Your task to perform on an android device: turn off priority inbox in the gmail app Image 0: 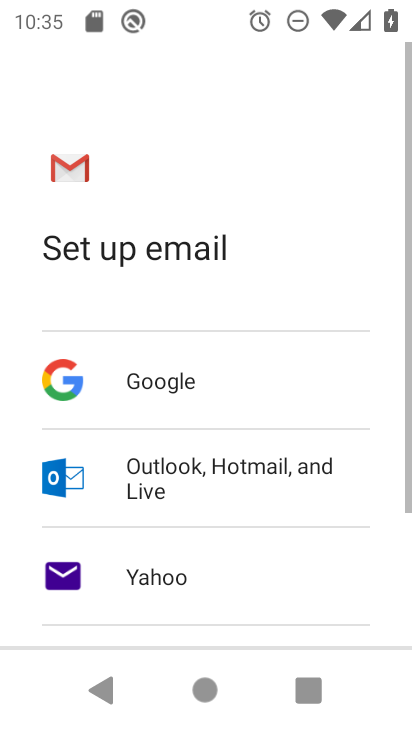
Step 0: press home button
Your task to perform on an android device: turn off priority inbox in the gmail app Image 1: 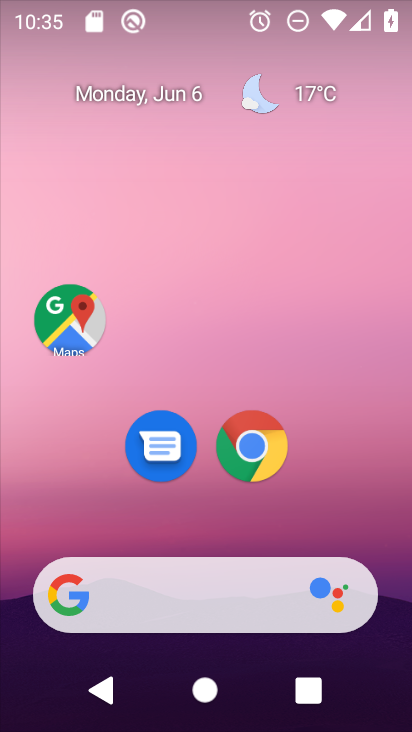
Step 1: drag from (194, 532) to (195, 128)
Your task to perform on an android device: turn off priority inbox in the gmail app Image 2: 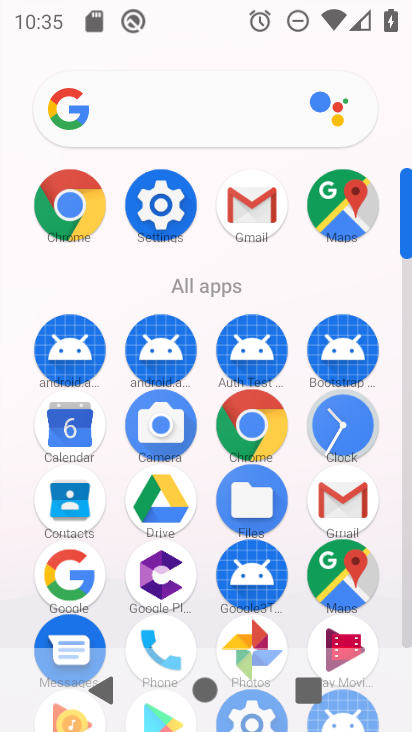
Step 2: click (240, 217)
Your task to perform on an android device: turn off priority inbox in the gmail app Image 3: 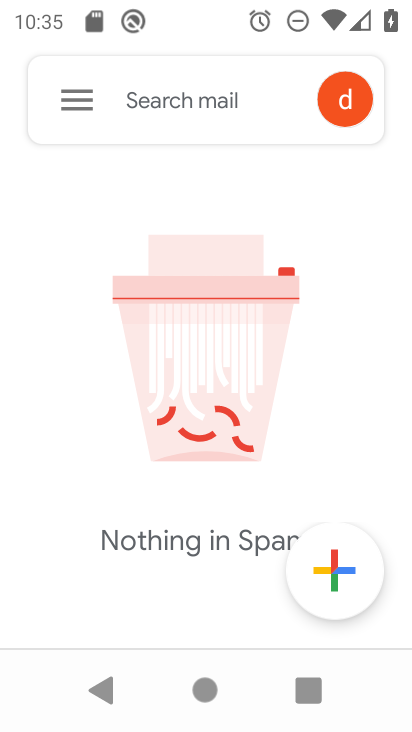
Step 3: click (64, 97)
Your task to perform on an android device: turn off priority inbox in the gmail app Image 4: 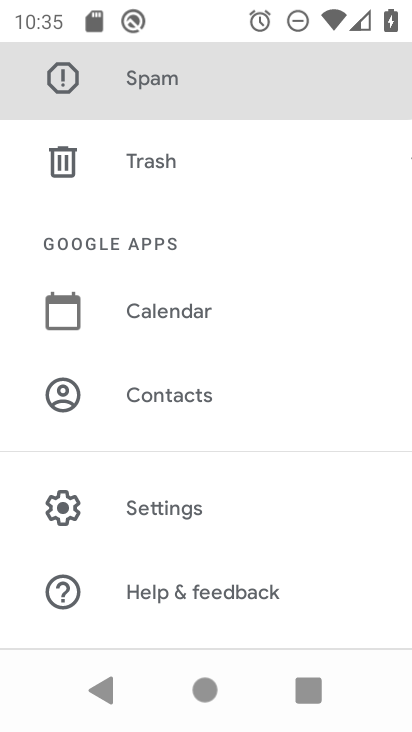
Step 4: drag from (143, 172) to (186, 560)
Your task to perform on an android device: turn off priority inbox in the gmail app Image 5: 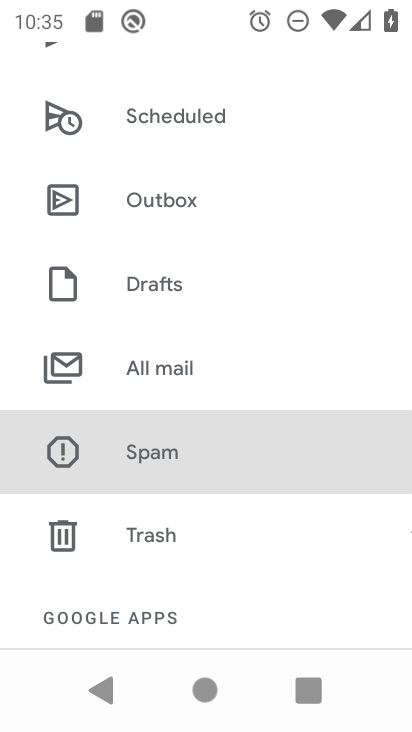
Step 5: drag from (172, 582) to (179, 257)
Your task to perform on an android device: turn off priority inbox in the gmail app Image 6: 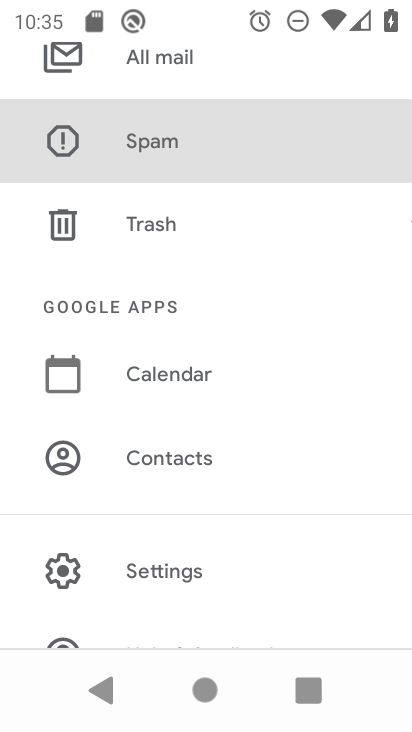
Step 6: drag from (117, 608) to (167, 285)
Your task to perform on an android device: turn off priority inbox in the gmail app Image 7: 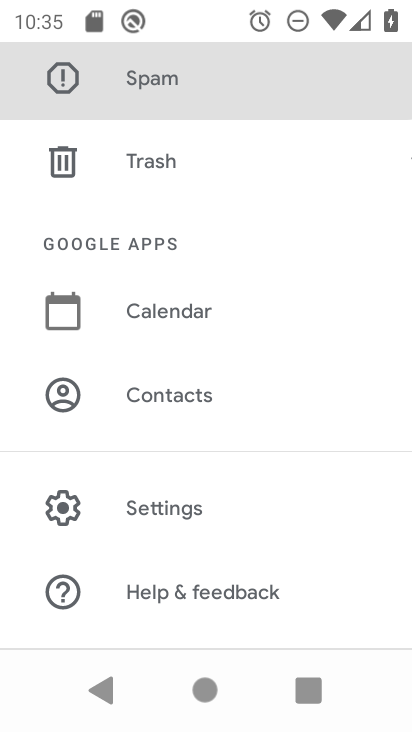
Step 7: click (138, 512)
Your task to perform on an android device: turn off priority inbox in the gmail app Image 8: 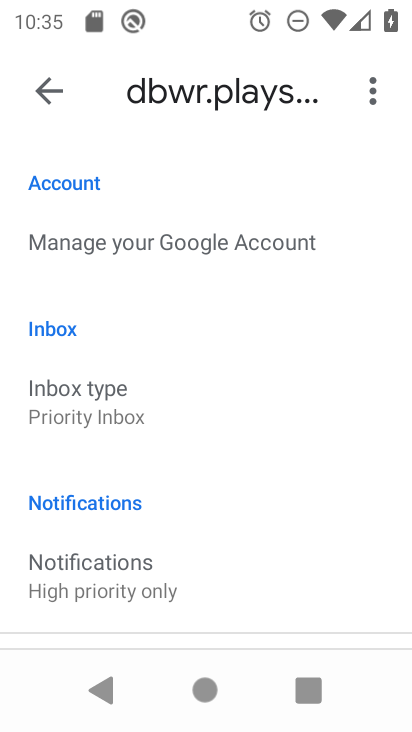
Step 8: task complete